Your task to perform on an android device: toggle pop-ups in chrome Image 0: 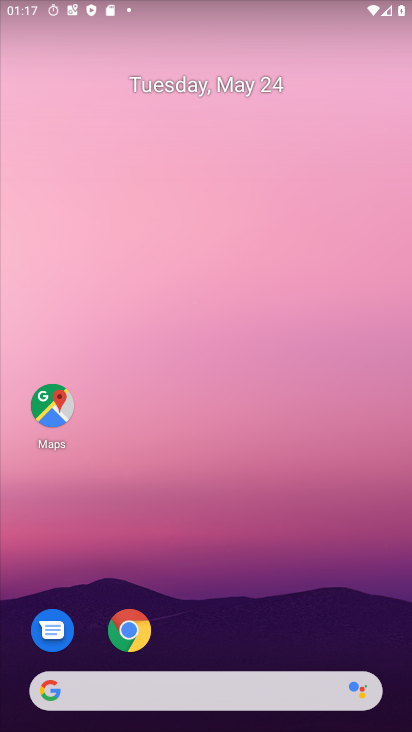
Step 0: click (131, 635)
Your task to perform on an android device: toggle pop-ups in chrome Image 1: 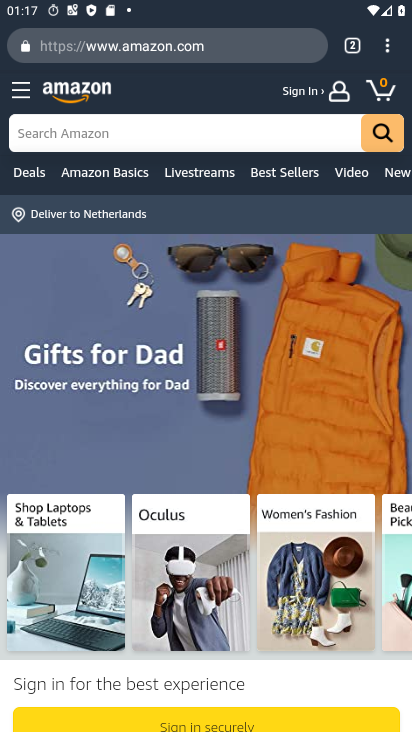
Step 1: click (387, 49)
Your task to perform on an android device: toggle pop-ups in chrome Image 2: 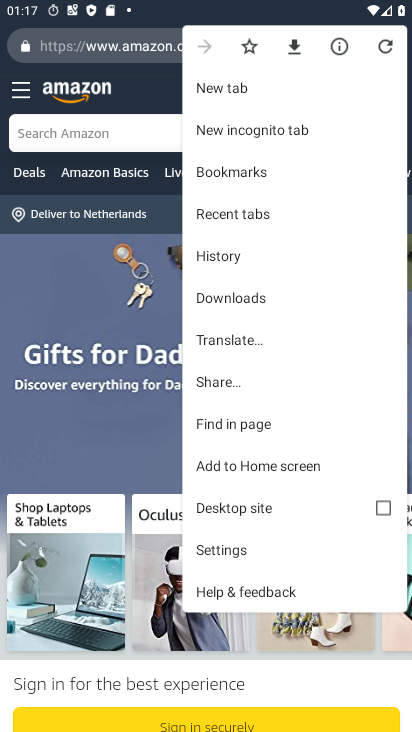
Step 2: click (232, 550)
Your task to perform on an android device: toggle pop-ups in chrome Image 3: 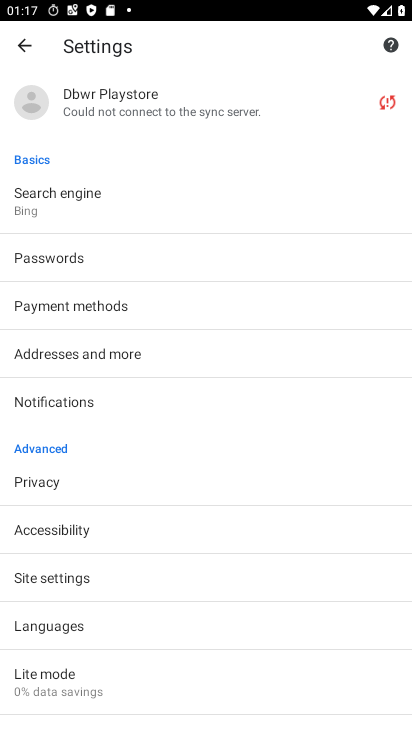
Step 3: click (55, 581)
Your task to perform on an android device: toggle pop-ups in chrome Image 4: 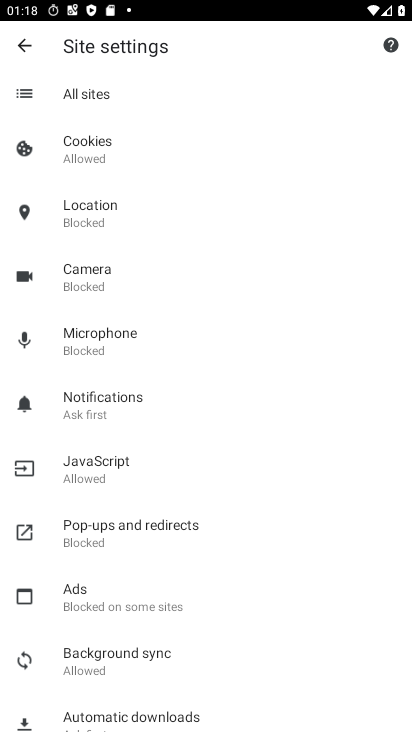
Step 4: click (81, 537)
Your task to perform on an android device: toggle pop-ups in chrome Image 5: 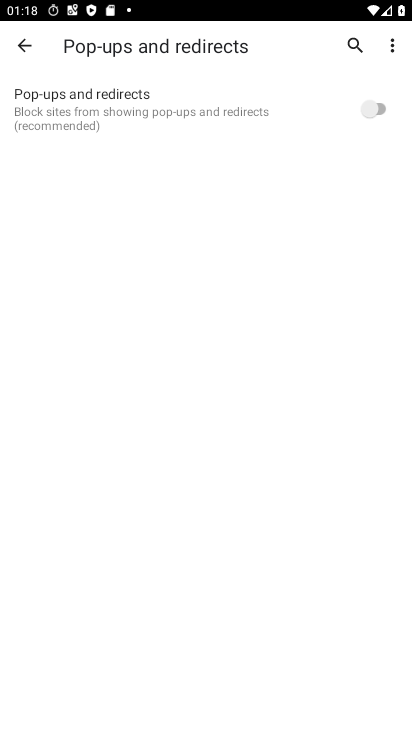
Step 5: click (378, 112)
Your task to perform on an android device: toggle pop-ups in chrome Image 6: 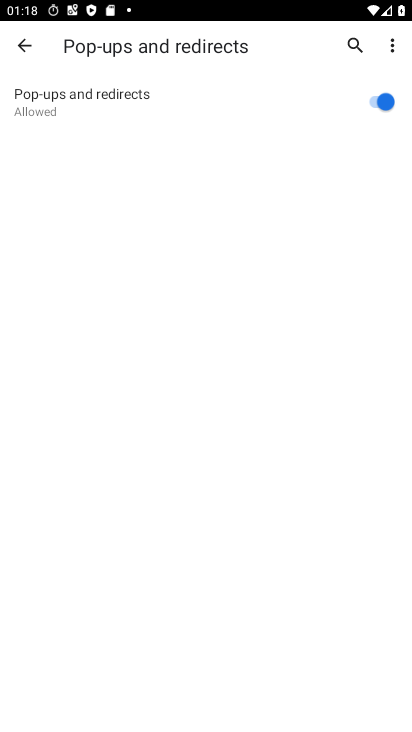
Step 6: task complete